Your task to perform on an android device: toggle pop-ups in chrome Image 0: 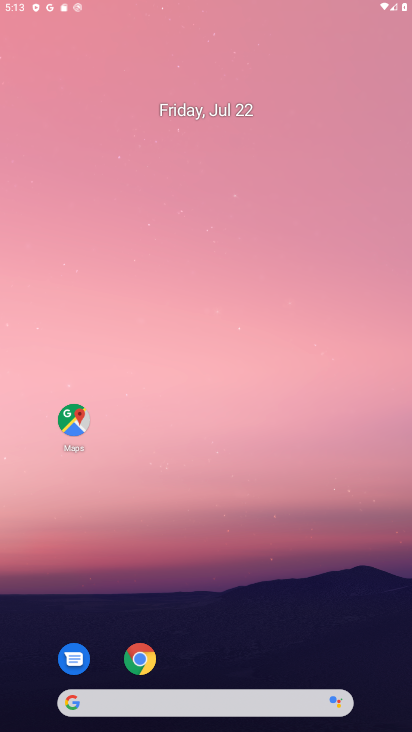
Step 0: press home button
Your task to perform on an android device: toggle pop-ups in chrome Image 1: 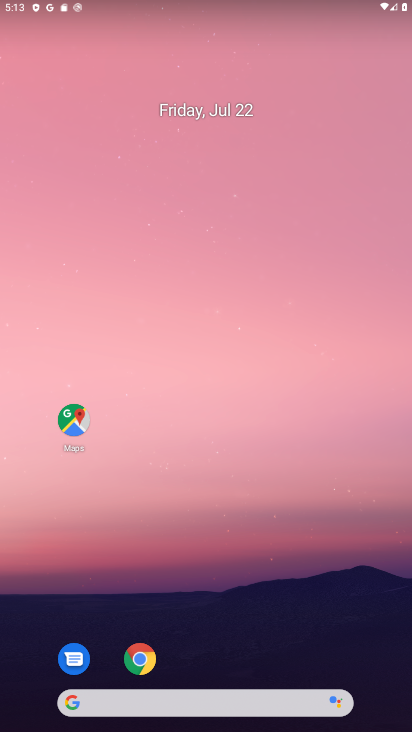
Step 1: click (142, 652)
Your task to perform on an android device: toggle pop-ups in chrome Image 2: 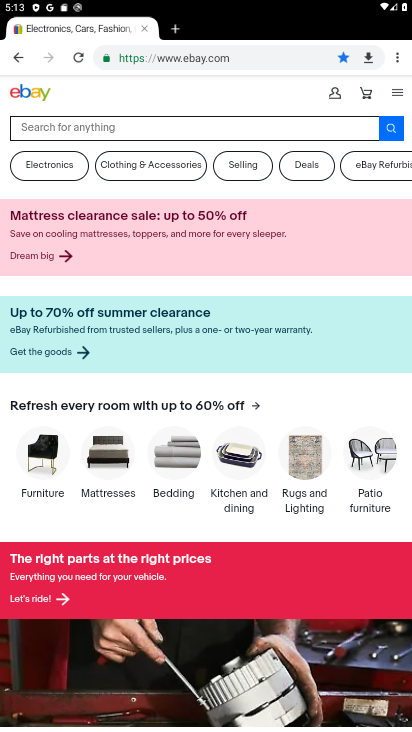
Step 2: click (400, 51)
Your task to perform on an android device: toggle pop-ups in chrome Image 3: 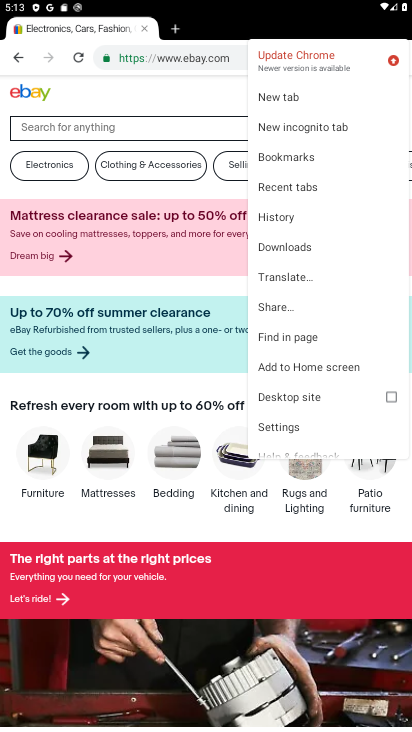
Step 3: click (291, 424)
Your task to perform on an android device: toggle pop-ups in chrome Image 4: 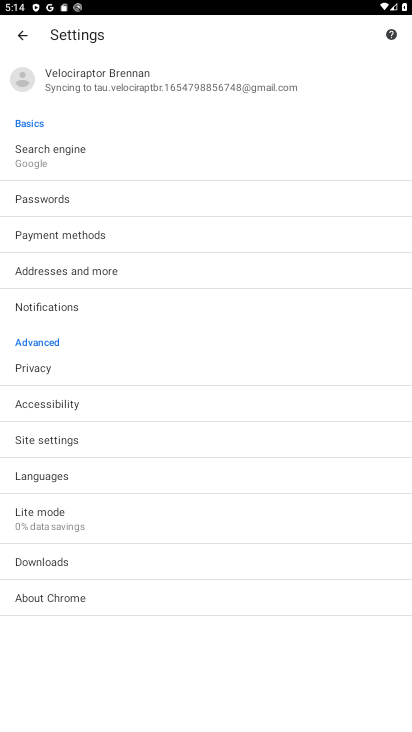
Step 4: click (103, 437)
Your task to perform on an android device: toggle pop-ups in chrome Image 5: 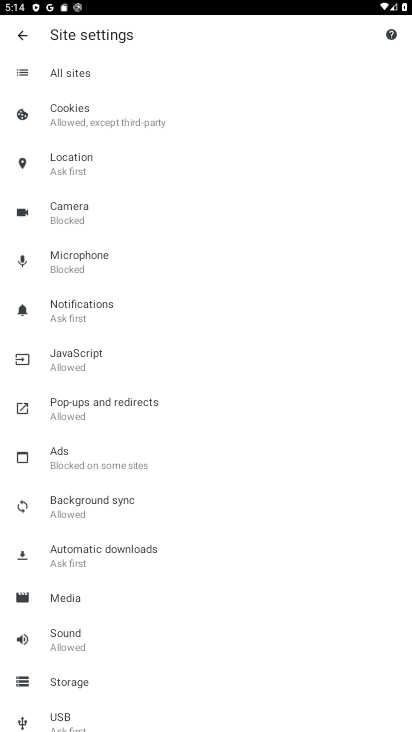
Step 5: click (97, 406)
Your task to perform on an android device: toggle pop-ups in chrome Image 6: 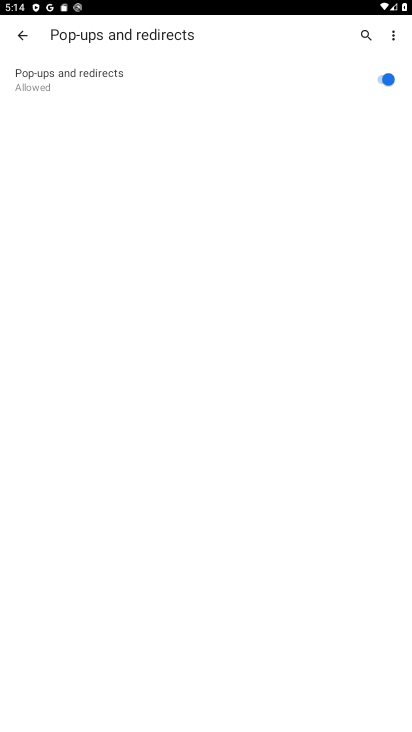
Step 6: click (393, 78)
Your task to perform on an android device: toggle pop-ups in chrome Image 7: 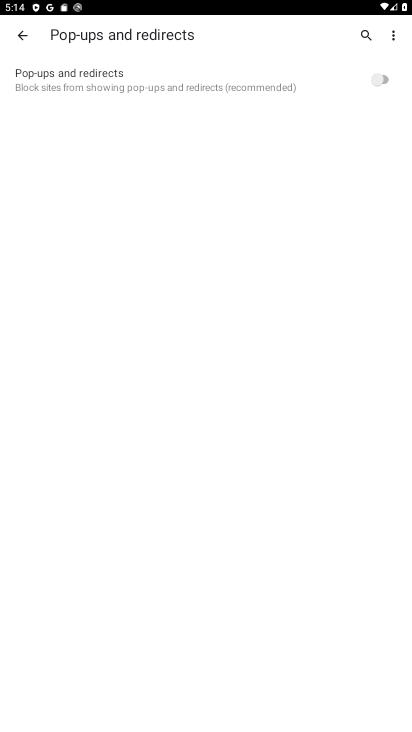
Step 7: task complete